Your task to perform on an android device: turn off smart reply in the gmail app Image 0: 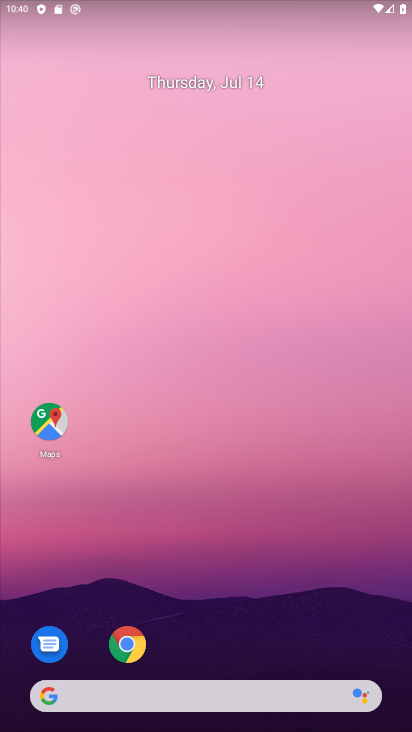
Step 0: drag from (219, 689) to (367, 57)
Your task to perform on an android device: turn off smart reply in the gmail app Image 1: 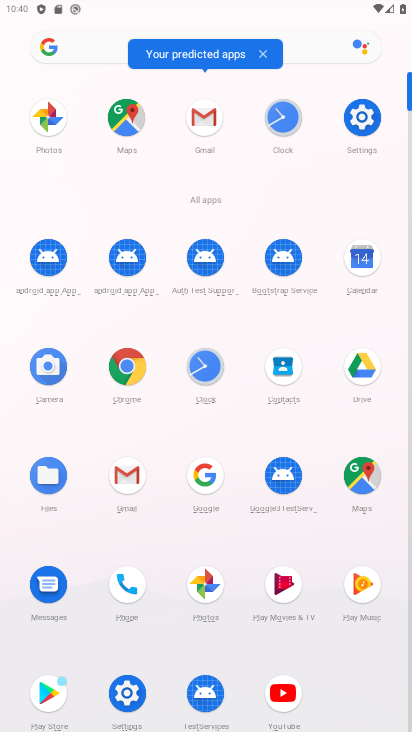
Step 1: click (140, 491)
Your task to perform on an android device: turn off smart reply in the gmail app Image 2: 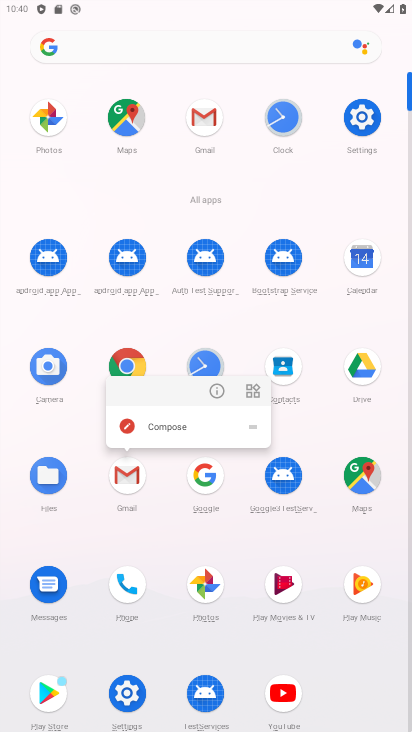
Step 2: click (140, 491)
Your task to perform on an android device: turn off smart reply in the gmail app Image 3: 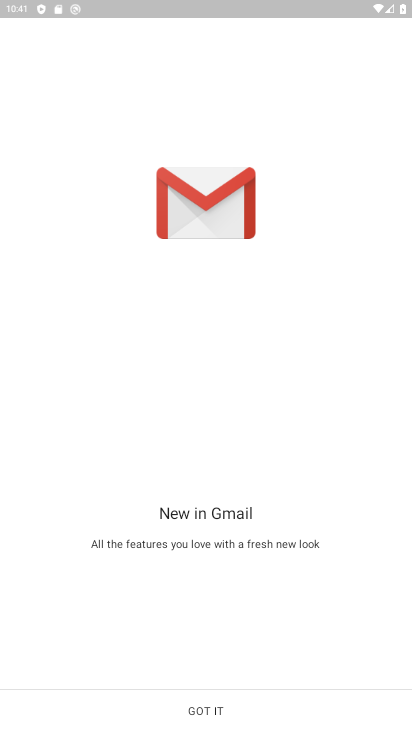
Step 3: click (209, 685)
Your task to perform on an android device: turn off smart reply in the gmail app Image 4: 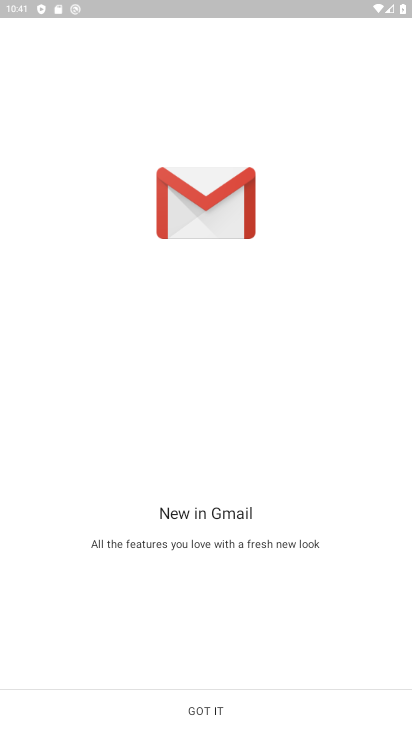
Step 4: click (176, 708)
Your task to perform on an android device: turn off smart reply in the gmail app Image 5: 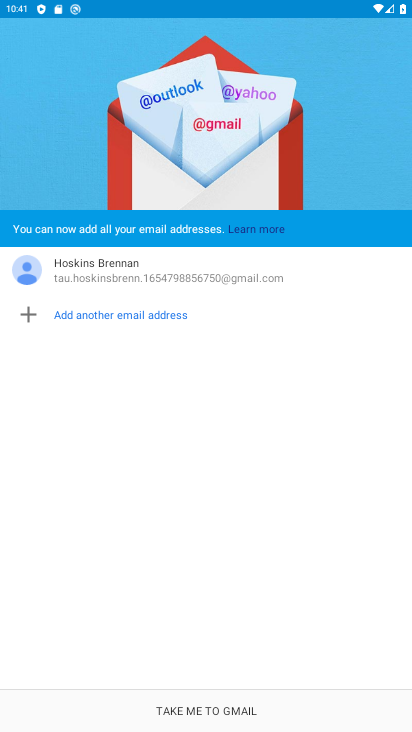
Step 5: click (219, 714)
Your task to perform on an android device: turn off smart reply in the gmail app Image 6: 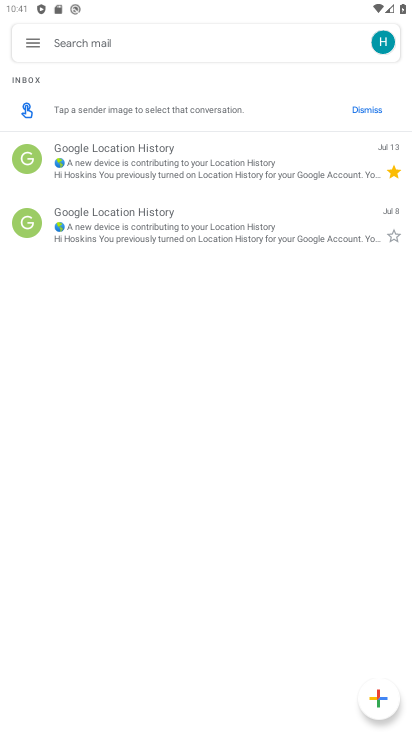
Step 6: click (32, 47)
Your task to perform on an android device: turn off smart reply in the gmail app Image 7: 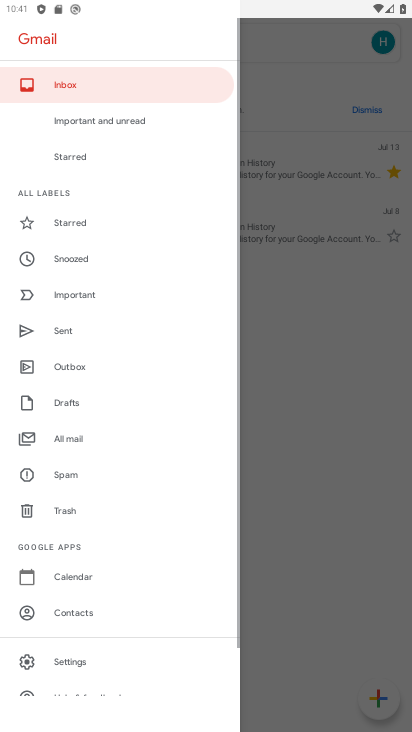
Step 7: drag from (53, 686) to (185, 304)
Your task to perform on an android device: turn off smart reply in the gmail app Image 8: 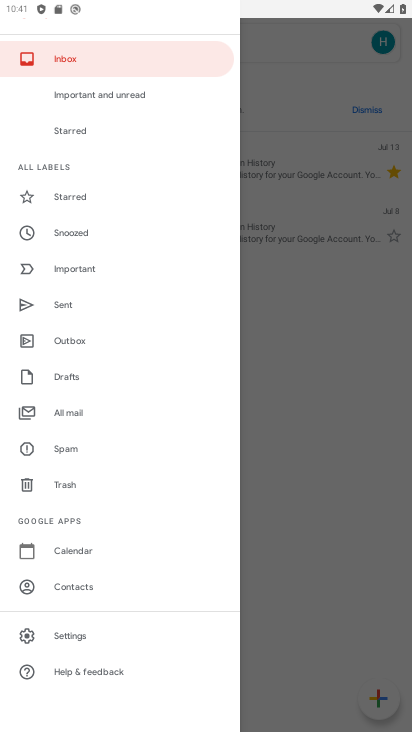
Step 8: click (105, 646)
Your task to perform on an android device: turn off smart reply in the gmail app Image 9: 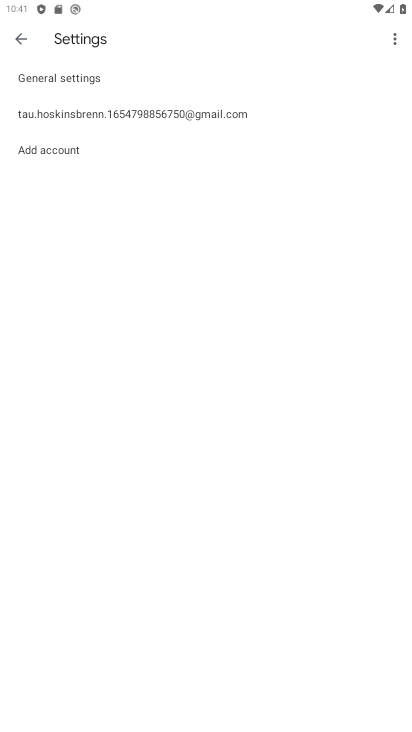
Step 9: click (211, 101)
Your task to perform on an android device: turn off smart reply in the gmail app Image 10: 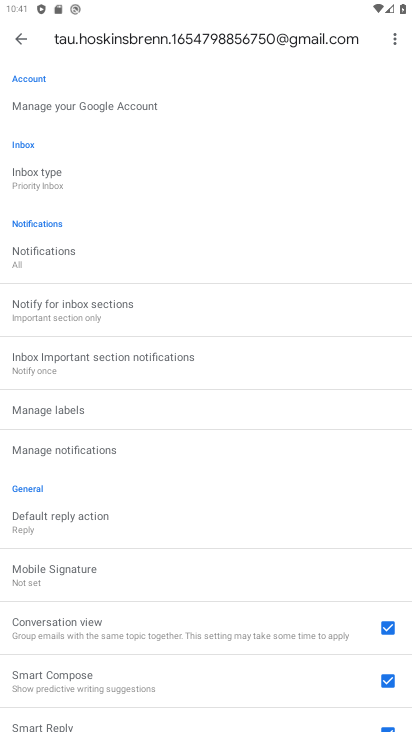
Step 10: drag from (167, 597) to (267, 271)
Your task to perform on an android device: turn off smart reply in the gmail app Image 11: 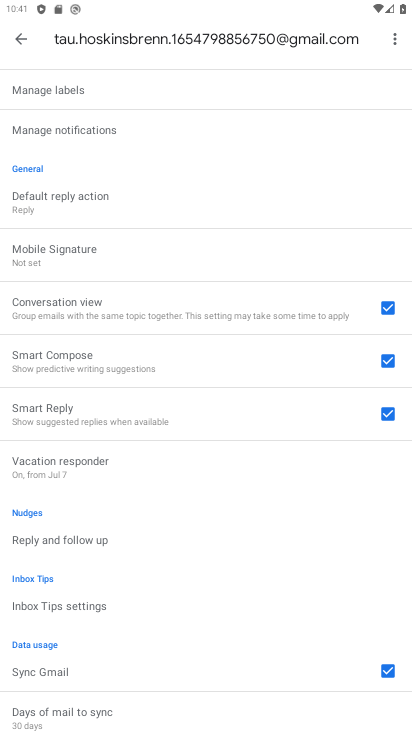
Step 11: click (394, 410)
Your task to perform on an android device: turn off smart reply in the gmail app Image 12: 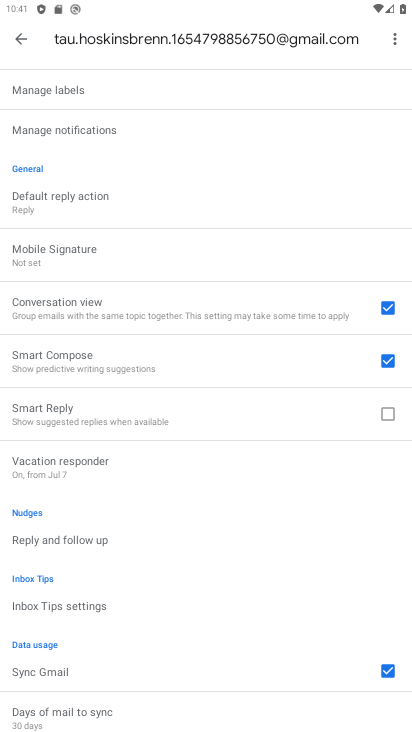
Step 12: task complete